Your task to perform on an android device: change text size in settings app Image 0: 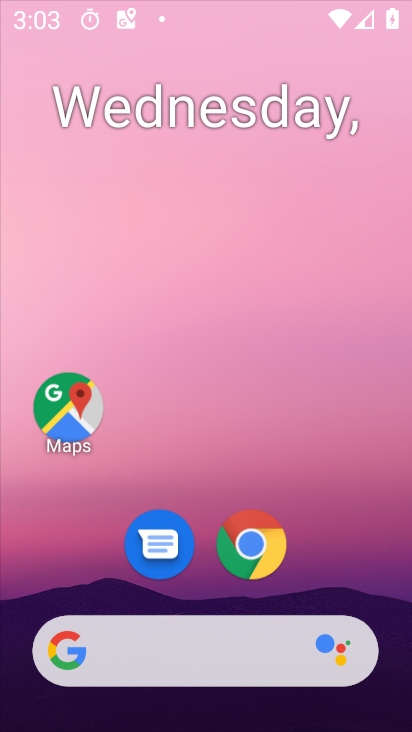
Step 0: drag from (345, 170) to (342, 210)
Your task to perform on an android device: change text size in settings app Image 1: 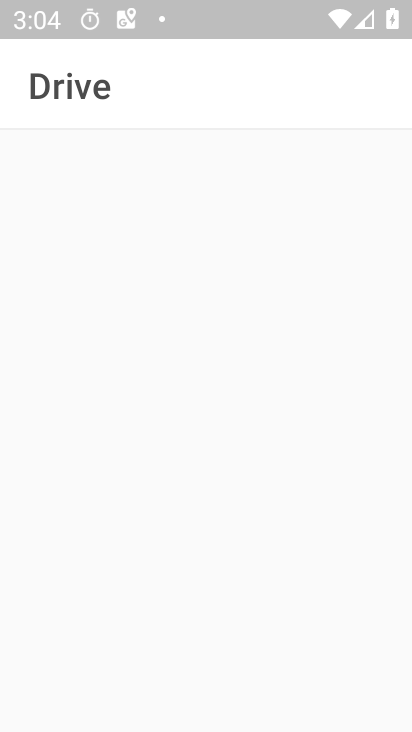
Step 1: press home button
Your task to perform on an android device: change text size in settings app Image 2: 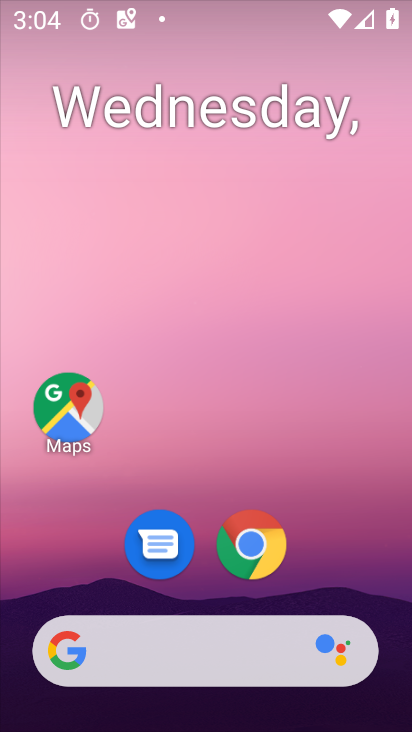
Step 2: drag from (357, 626) to (349, 237)
Your task to perform on an android device: change text size in settings app Image 3: 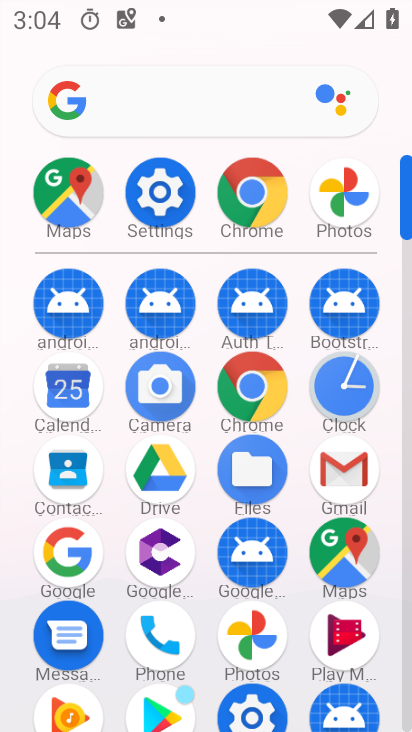
Step 3: click (240, 709)
Your task to perform on an android device: change text size in settings app Image 4: 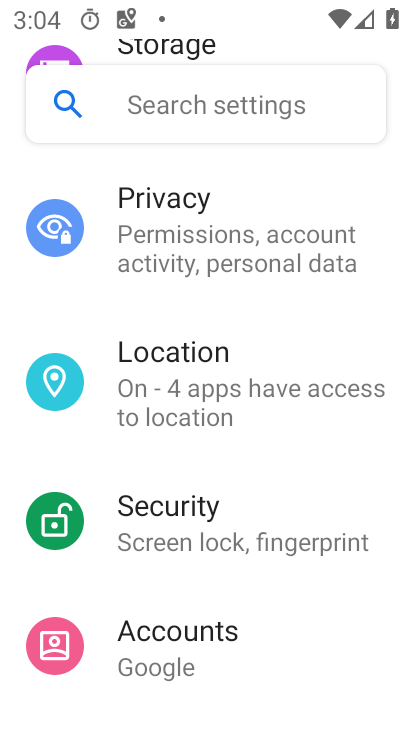
Step 4: drag from (269, 631) to (341, 235)
Your task to perform on an android device: change text size in settings app Image 5: 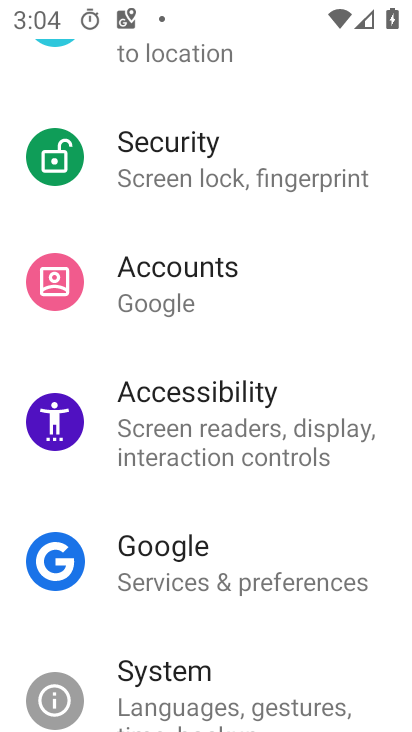
Step 5: drag from (297, 699) to (293, 294)
Your task to perform on an android device: change text size in settings app Image 6: 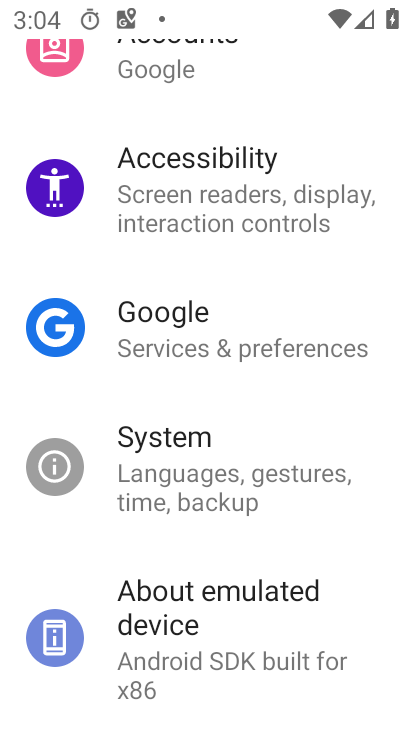
Step 6: drag from (329, 248) to (303, 521)
Your task to perform on an android device: change text size in settings app Image 7: 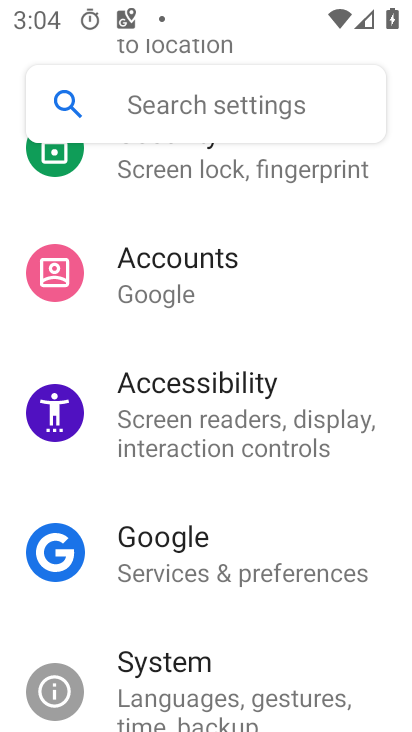
Step 7: drag from (286, 218) to (160, 581)
Your task to perform on an android device: change text size in settings app Image 8: 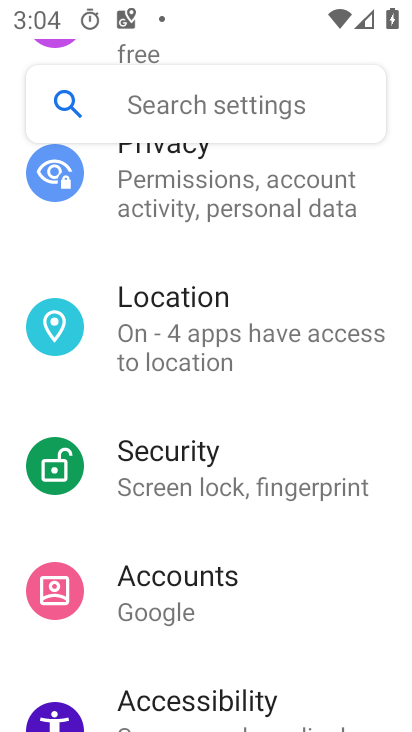
Step 8: drag from (161, 210) to (126, 583)
Your task to perform on an android device: change text size in settings app Image 9: 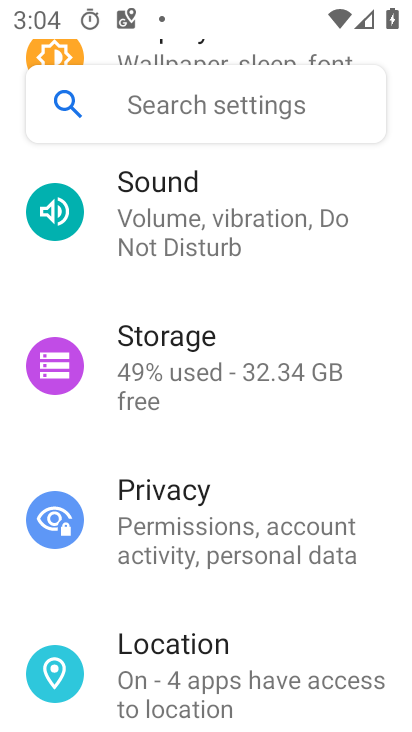
Step 9: drag from (159, 283) to (117, 678)
Your task to perform on an android device: change text size in settings app Image 10: 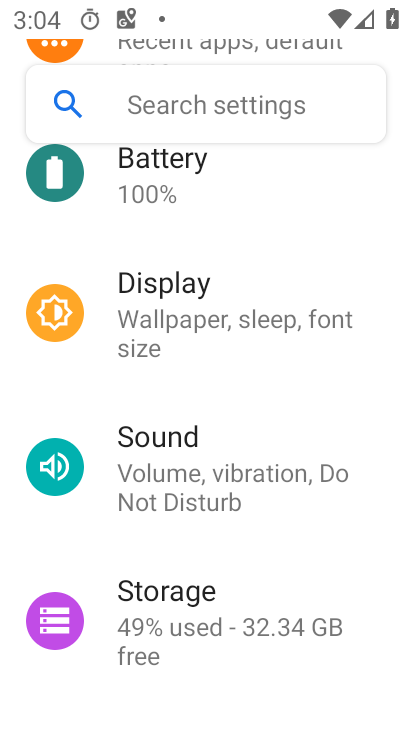
Step 10: click (162, 319)
Your task to perform on an android device: change text size in settings app Image 11: 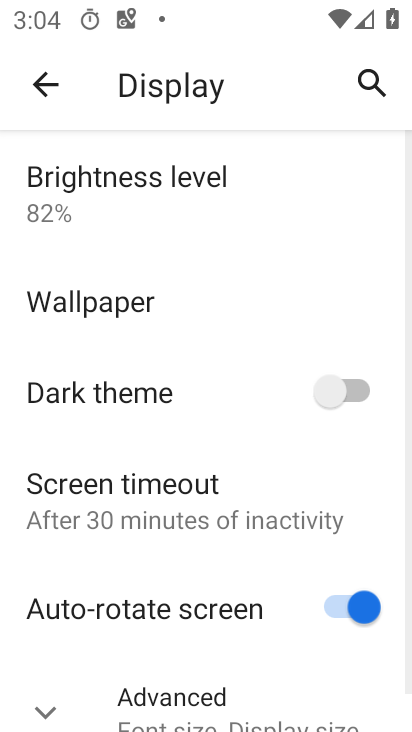
Step 11: drag from (172, 712) to (200, 373)
Your task to perform on an android device: change text size in settings app Image 12: 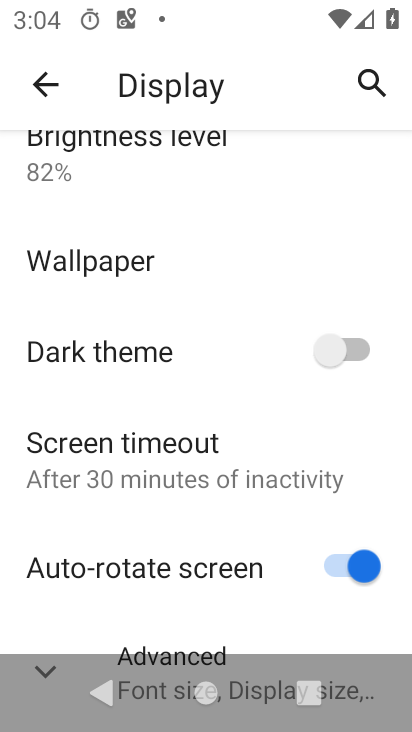
Step 12: drag from (137, 644) to (176, 270)
Your task to perform on an android device: change text size in settings app Image 13: 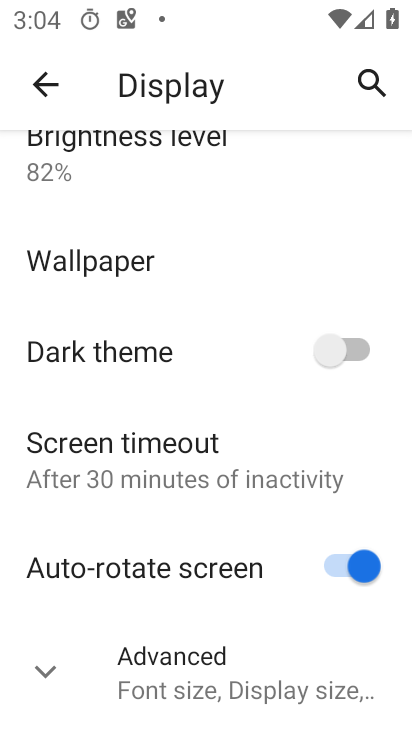
Step 13: click (157, 675)
Your task to perform on an android device: change text size in settings app Image 14: 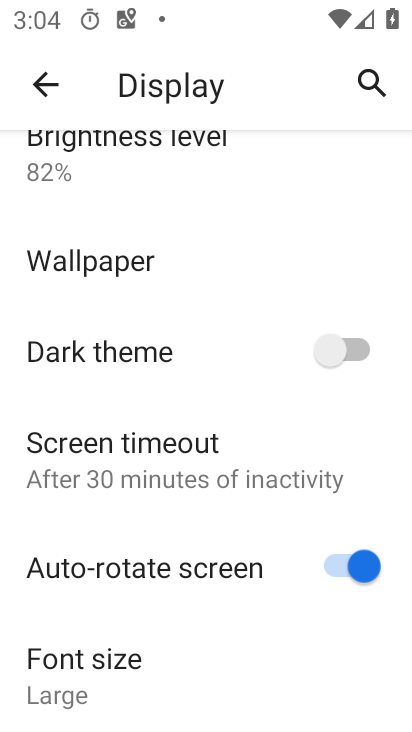
Step 14: click (72, 658)
Your task to perform on an android device: change text size in settings app Image 15: 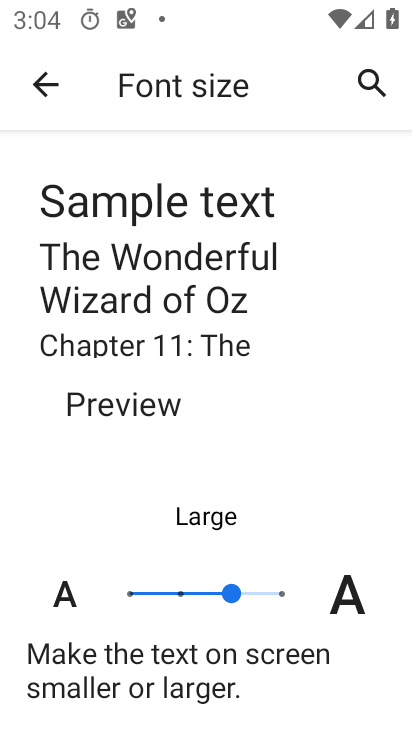
Step 15: click (131, 596)
Your task to perform on an android device: change text size in settings app Image 16: 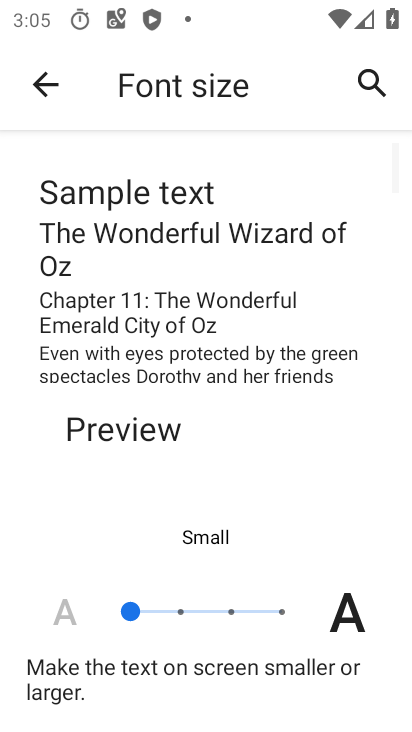
Step 16: task complete